Your task to perform on an android device: Open Youtube and go to the subscriptions tab Image 0: 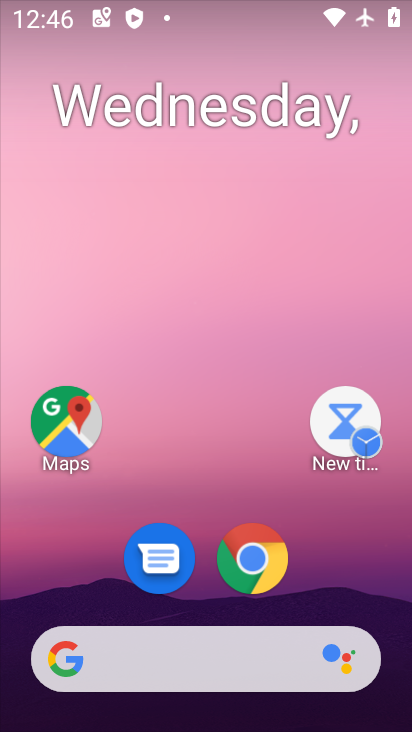
Step 0: drag from (274, 654) to (162, 151)
Your task to perform on an android device: Open Youtube and go to the subscriptions tab Image 1: 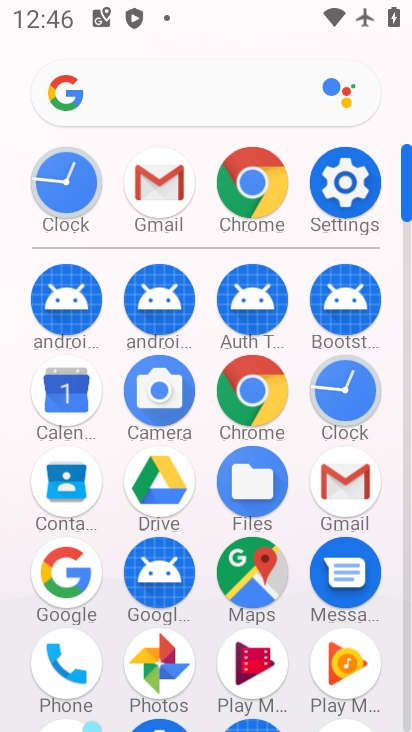
Step 1: drag from (252, 414) to (244, 275)
Your task to perform on an android device: Open Youtube and go to the subscriptions tab Image 2: 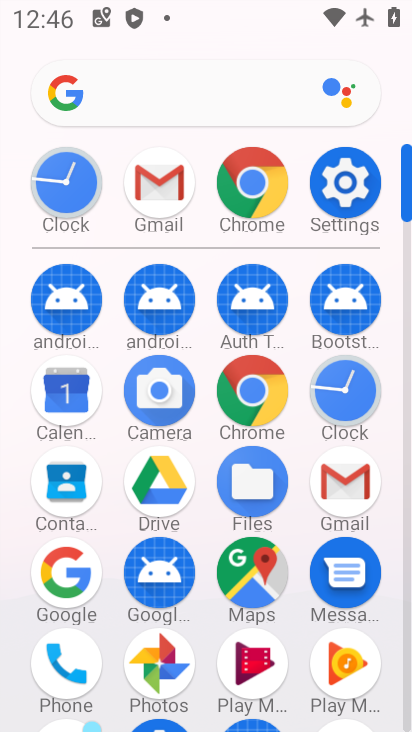
Step 2: drag from (303, 475) to (254, 220)
Your task to perform on an android device: Open Youtube and go to the subscriptions tab Image 3: 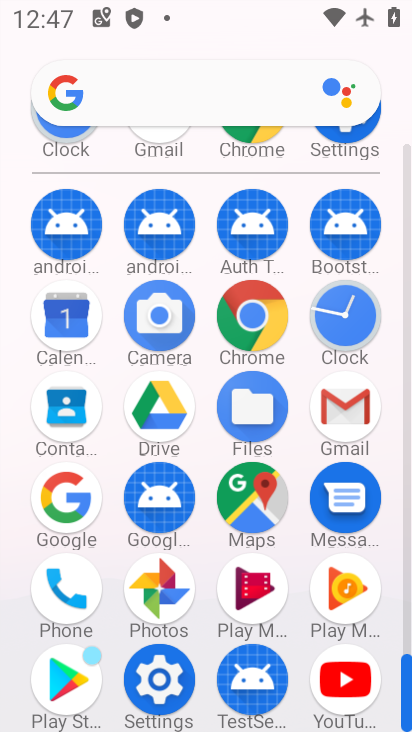
Step 3: click (350, 666)
Your task to perform on an android device: Open Youtube and go to the subscriptions tab Image 4: 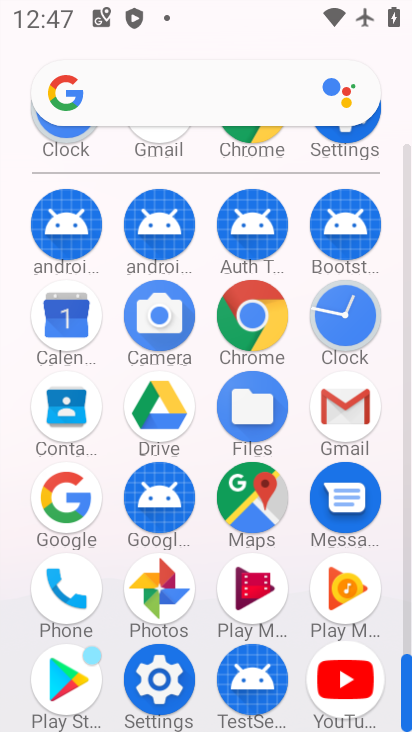
Step 4: drag from (339, 677) to (357, 648)
Your task to perform on an android device: Open Youtube and go to the subscriptions tab Image 5: 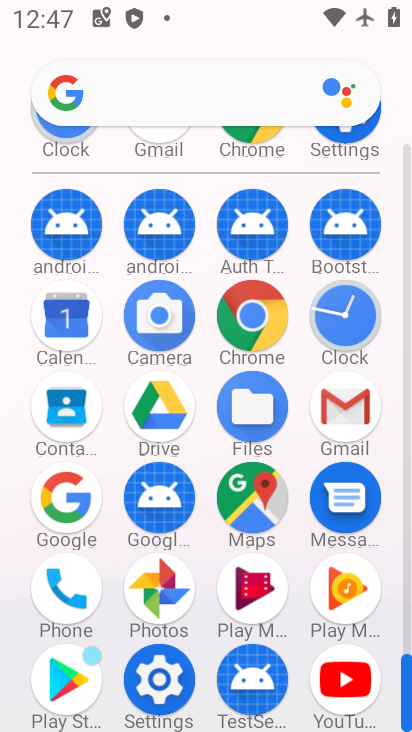
Step 5: click (354, 677)
Your task to perform on an android device: Open Youtube and go to the subscriptions tab Image 6: 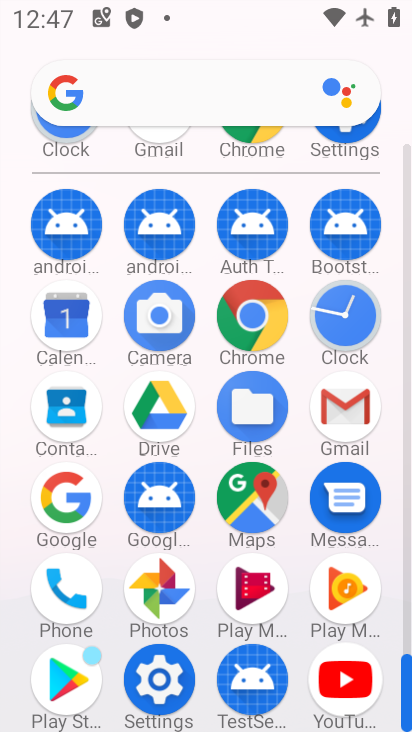
Step 6: click (354, 677)
Your task to perform on an android device: Open Youtube and go to the subscriptions tab Image 7: 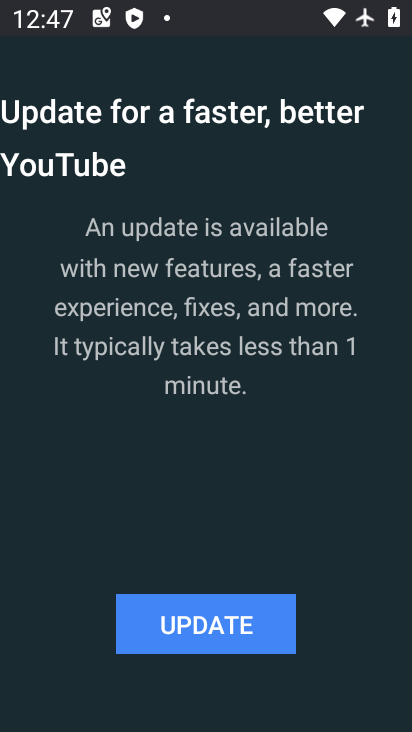
Step 7: task complete